Your task to perform on an android device: toggle location history Image 0: 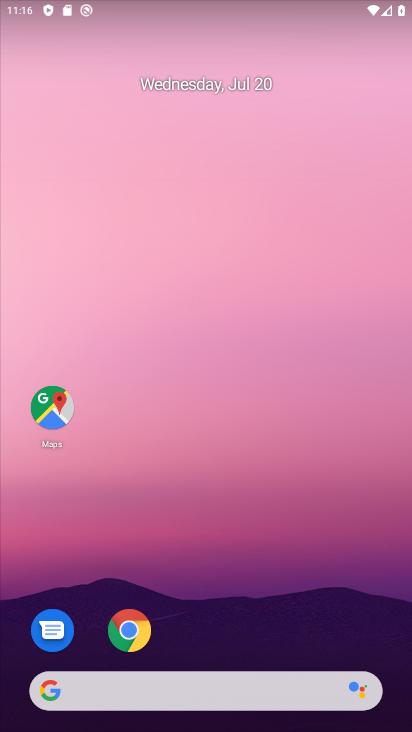
Step 0: press home button
Your task to perform on an android device: toggle location history Image 1: 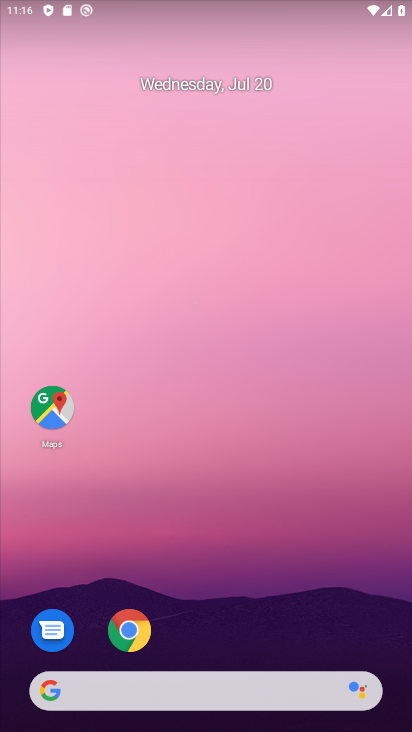
Step 1: drag from (244, 716) to (221, 140)
Your task to perform on an android device: toggle location history Image 2: 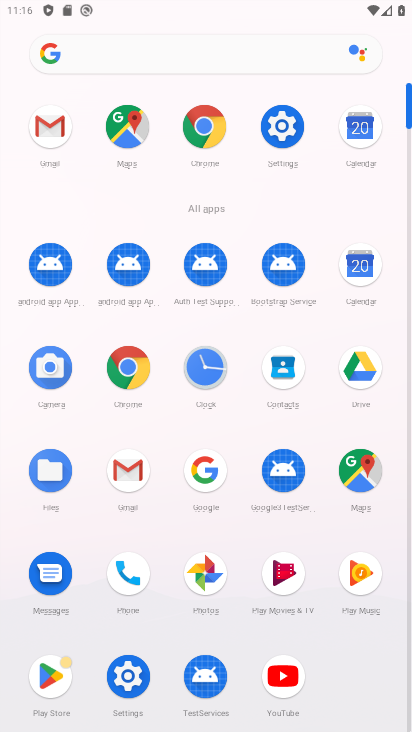
Step 2: click (273, 139)
Your task to perform on an android device: toggle location history Image 3: 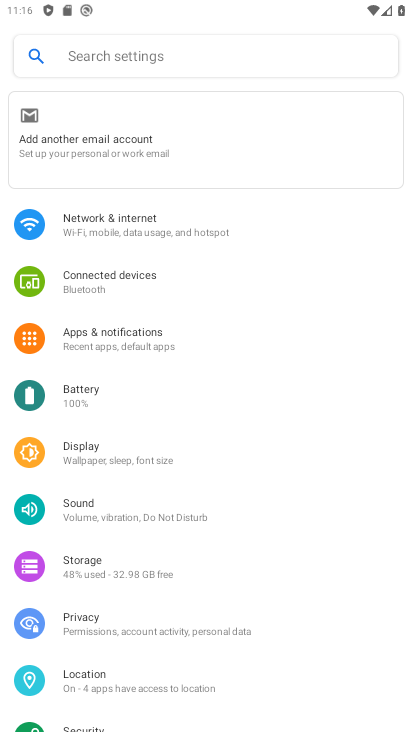
Step 3: click (153, 42)
Your task to perform on an android device: toggle location history Image 4: 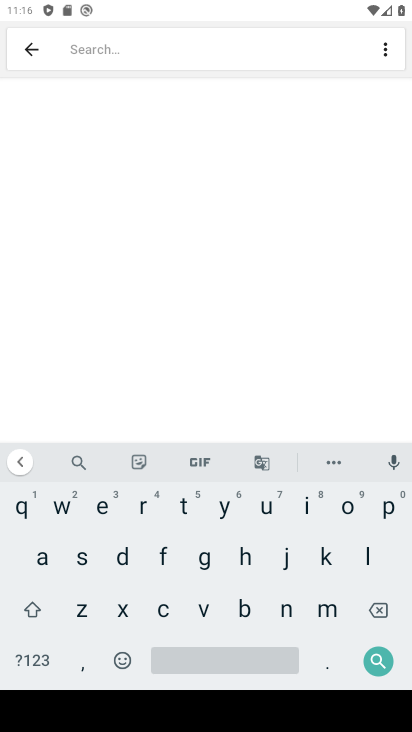
Step 4: click (369, 547)
Your task to perform on an android device: toggle location history Image 5: 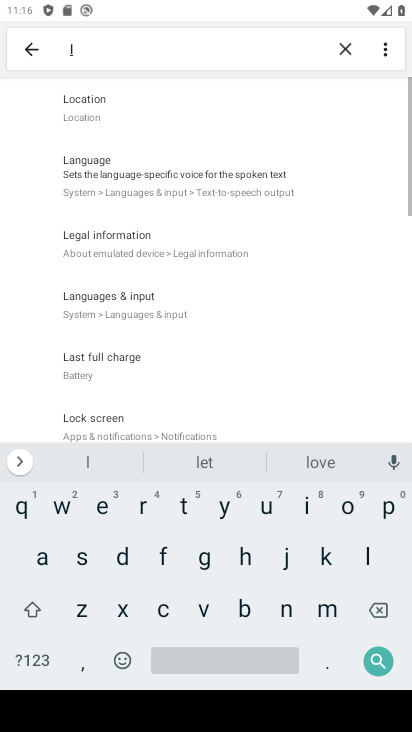
Step 5: click (352, 505)
Your task to perform on an android device: toggle location history Image 6: 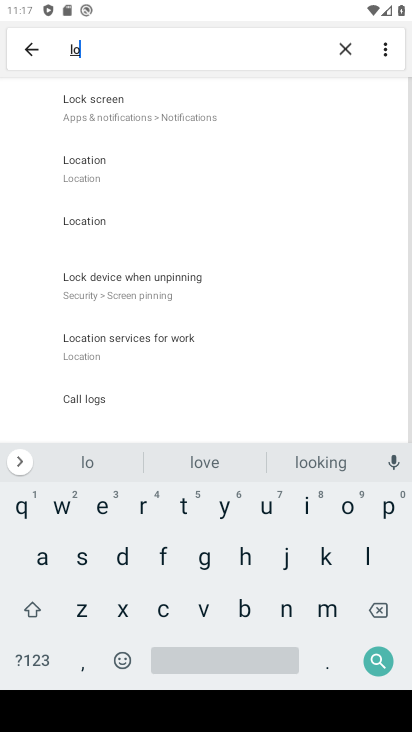
Step 6: click (111, 168)
Your task to perform on an android device: toggle location history Image 7: 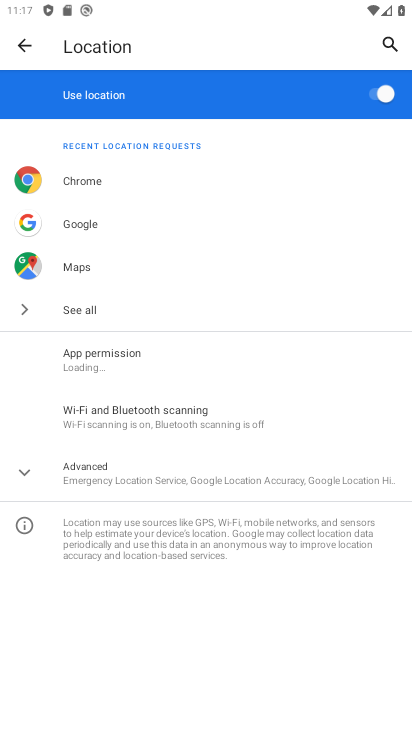
Step 7: click (45, 464)
Your task to perform on an android device: toggle location history Image 8: 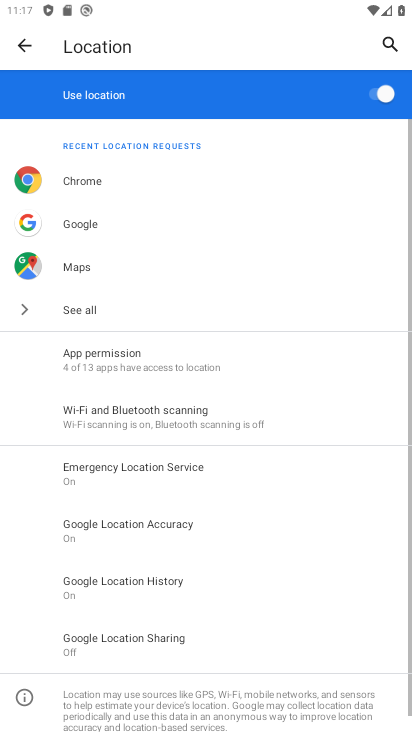
Step 8: click (169, 586)
Your task to perform on an android device: toggle location history Image 9: 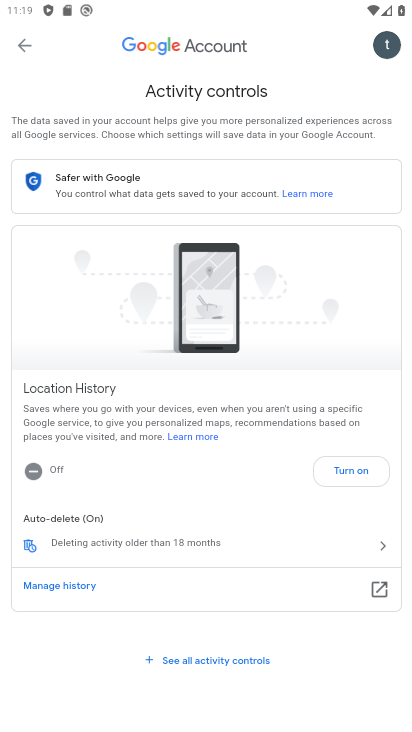
Step 9: task complete